Your task to perform on an android device: see creations saved in the google photos Image 0: 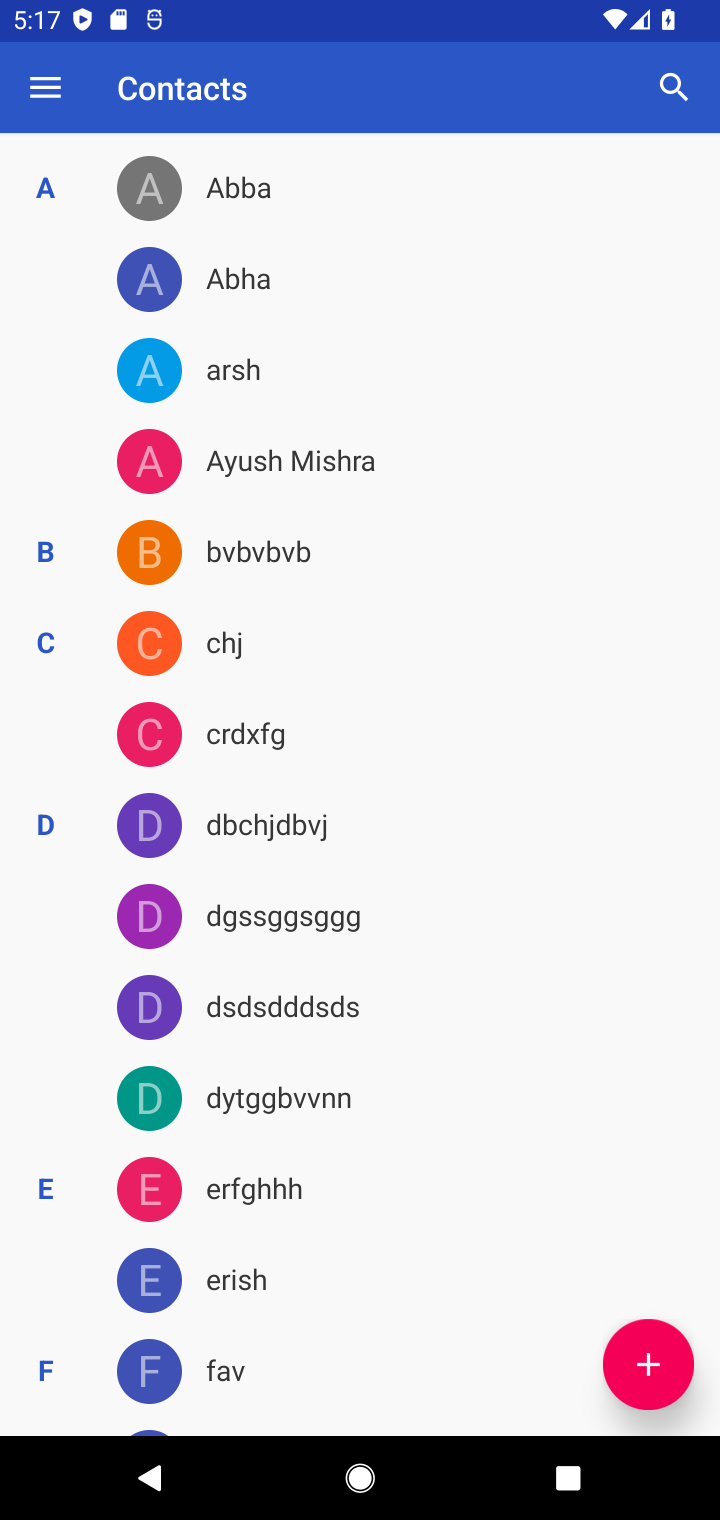
Step 0: press home button
Your task to perform on an android device: see creations saved in the google photos Image 1: 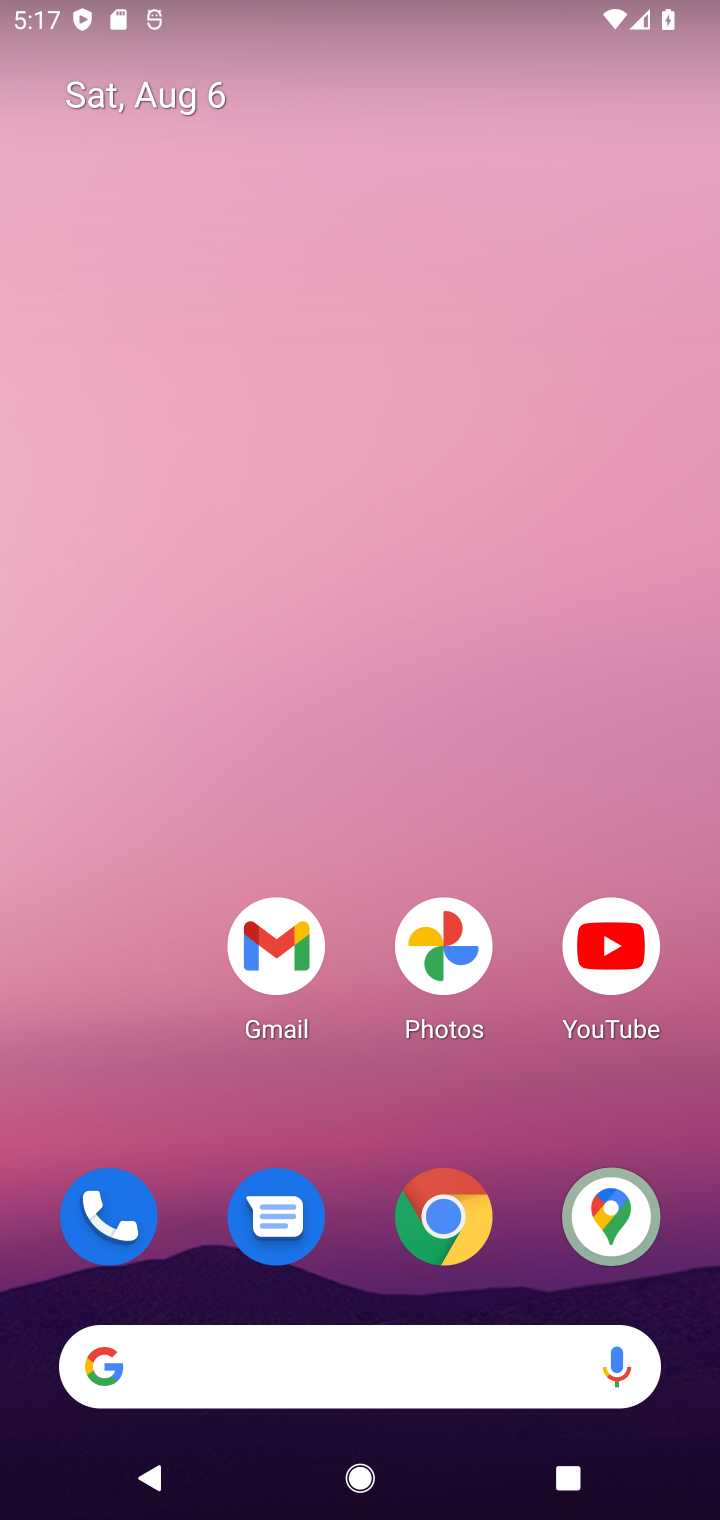
Step 1: drag from (364, 1081) to (455, 304)
Your task to perform on an android device: see creations saved in the google photos Image 2: 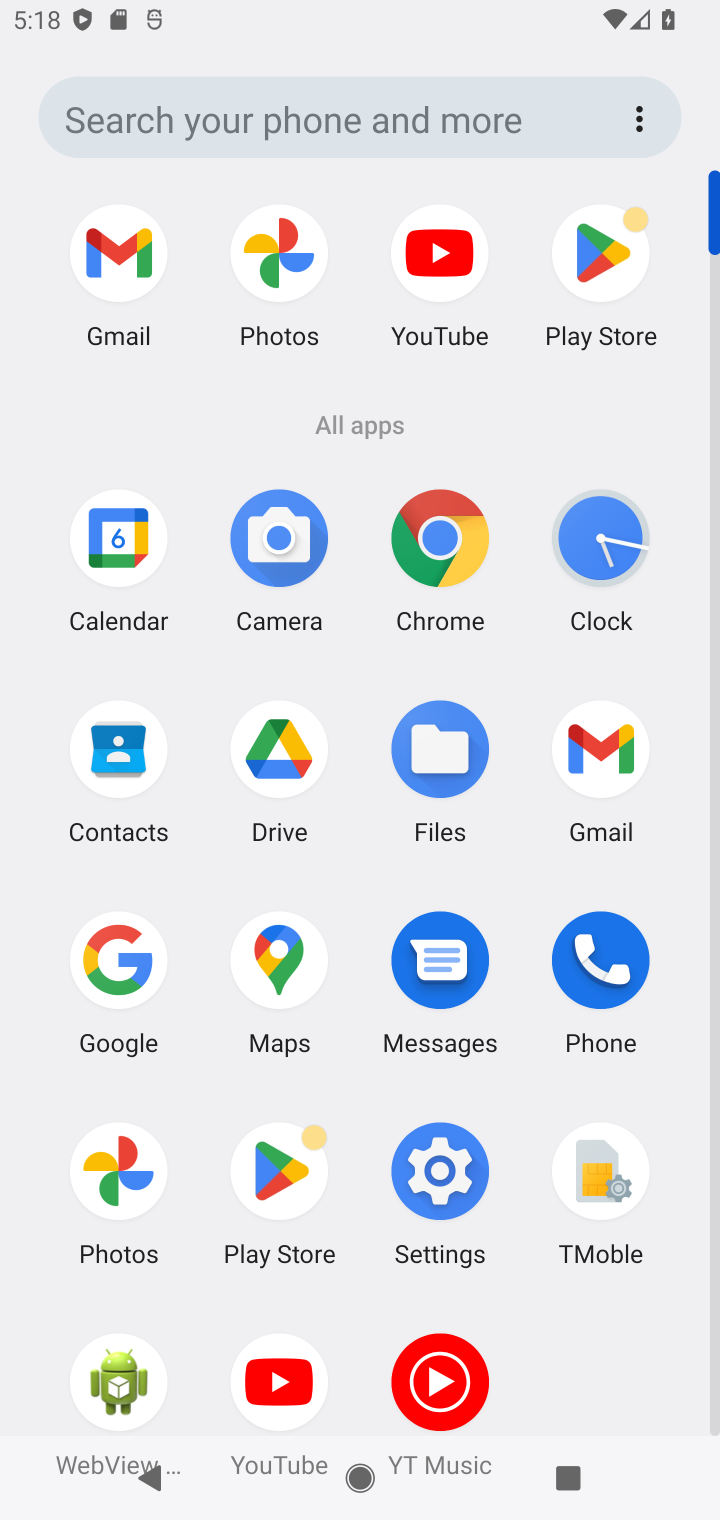
Step 2: click (141, 1156)
Your task to perform on an android device: see creations saved in the google photos Image 3: 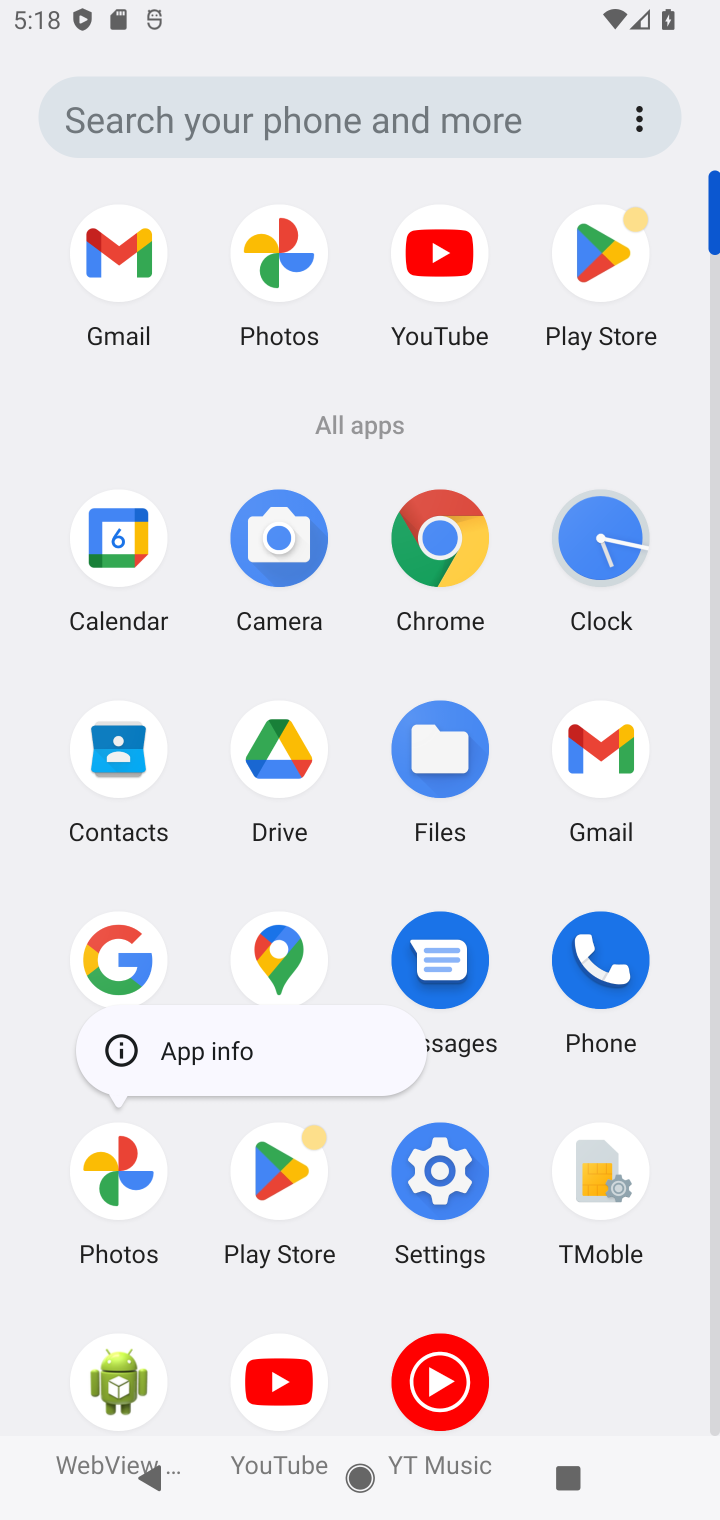
Step 3: click (114, 1192)
Your task to perform on an android device: see creations saved in the google photos Image 4: 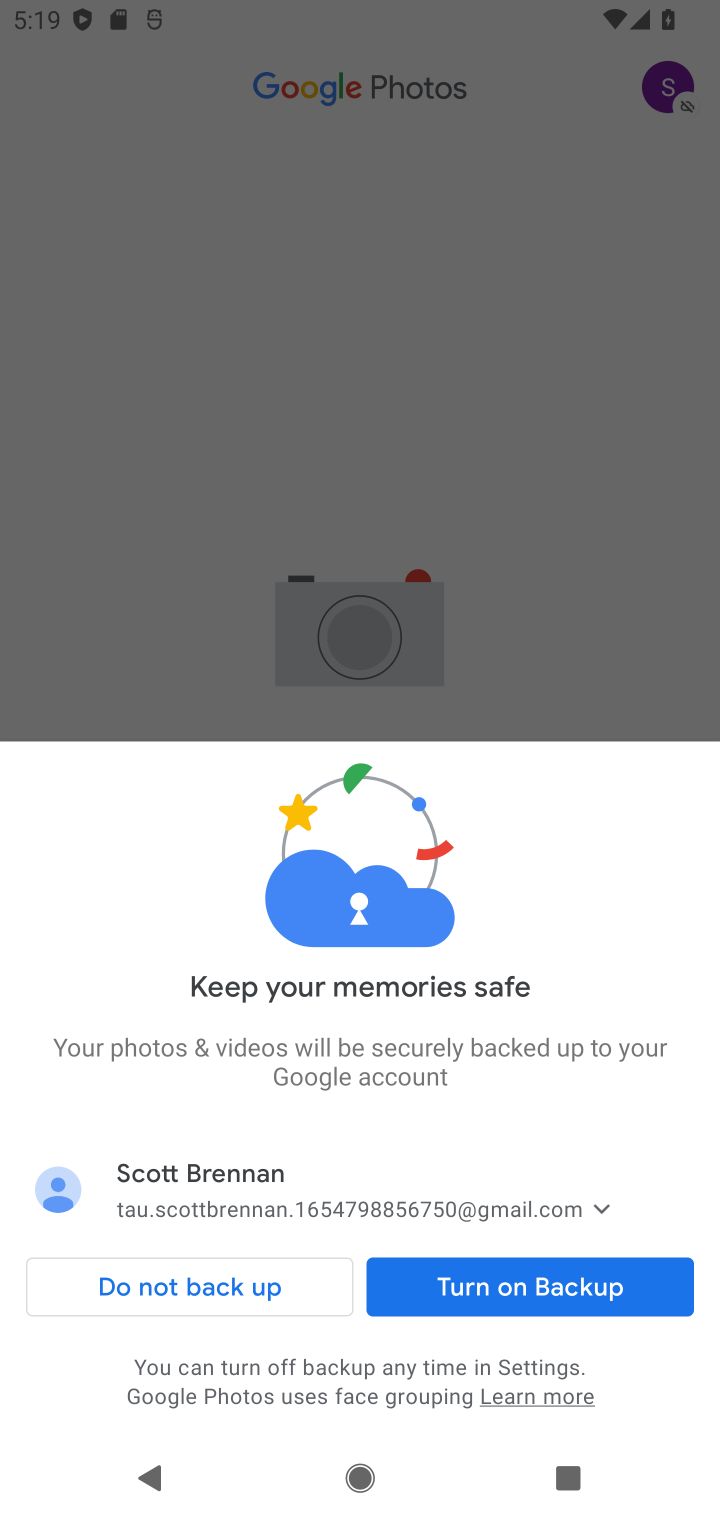
Step 4: click (526, 1271)
Your task to perform on an android device: see creations saved in the google photos Image 5: 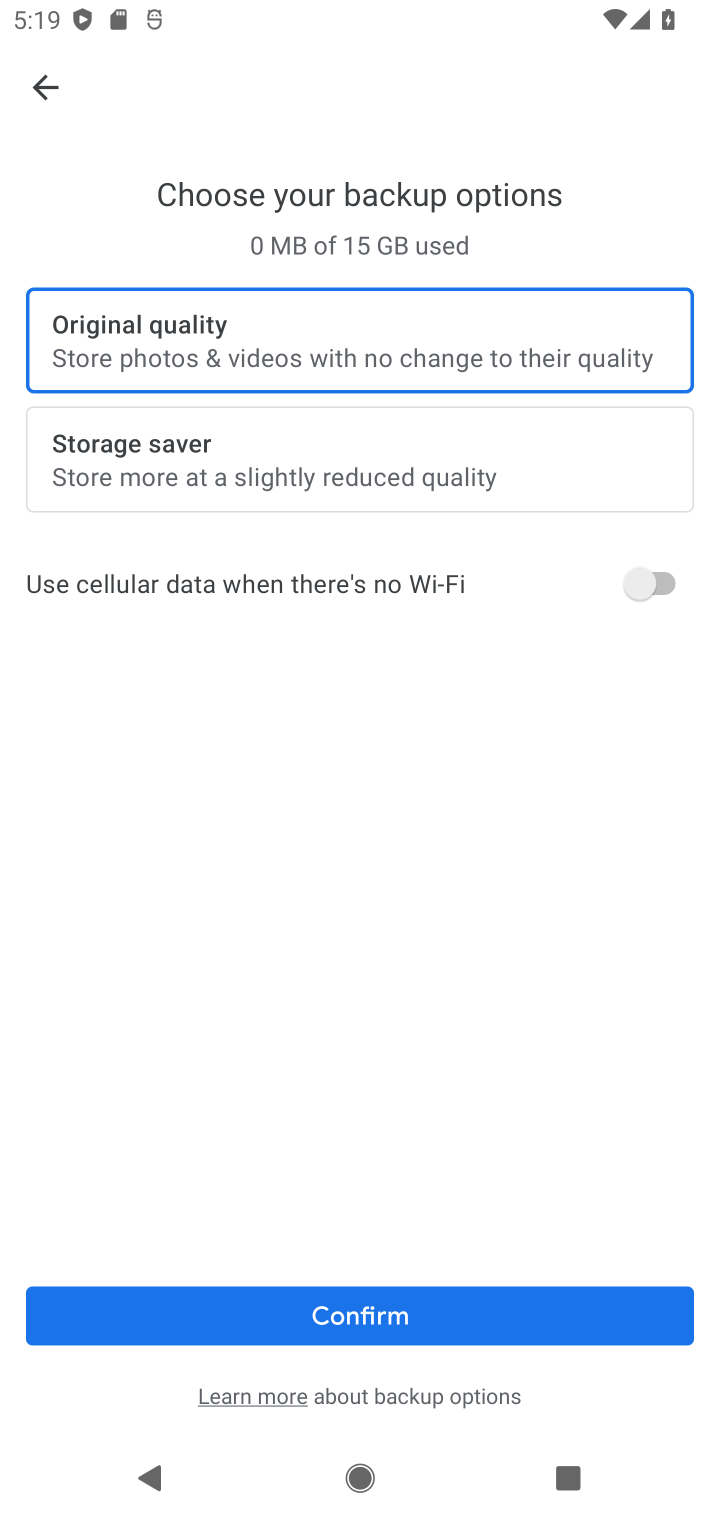
Step 5: click (524, 1255)
Your task to perform on an android device: see creations saved in the google photos Image 6: 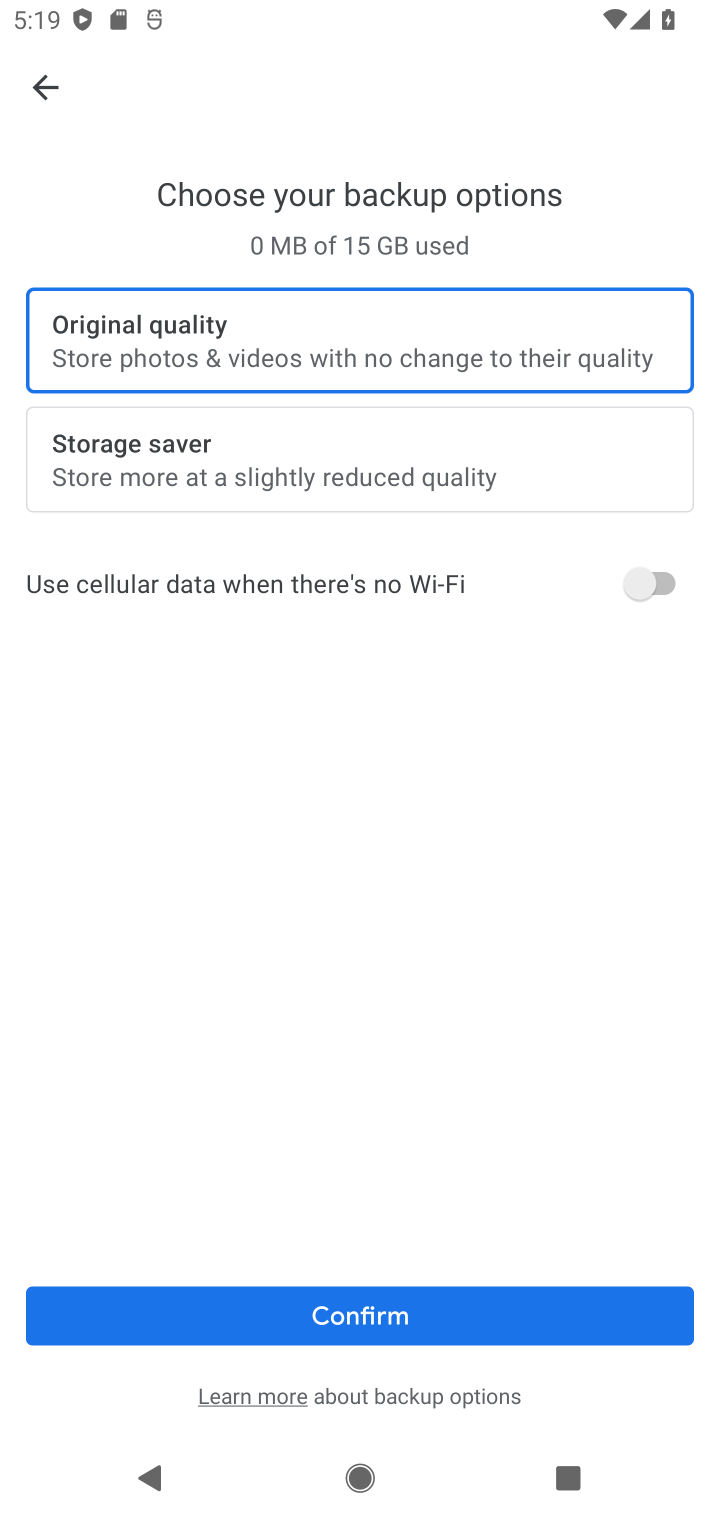
Step 6: click (424, 1364)
Your task to perform on an android device: see creations saved in the google photos Image 7: 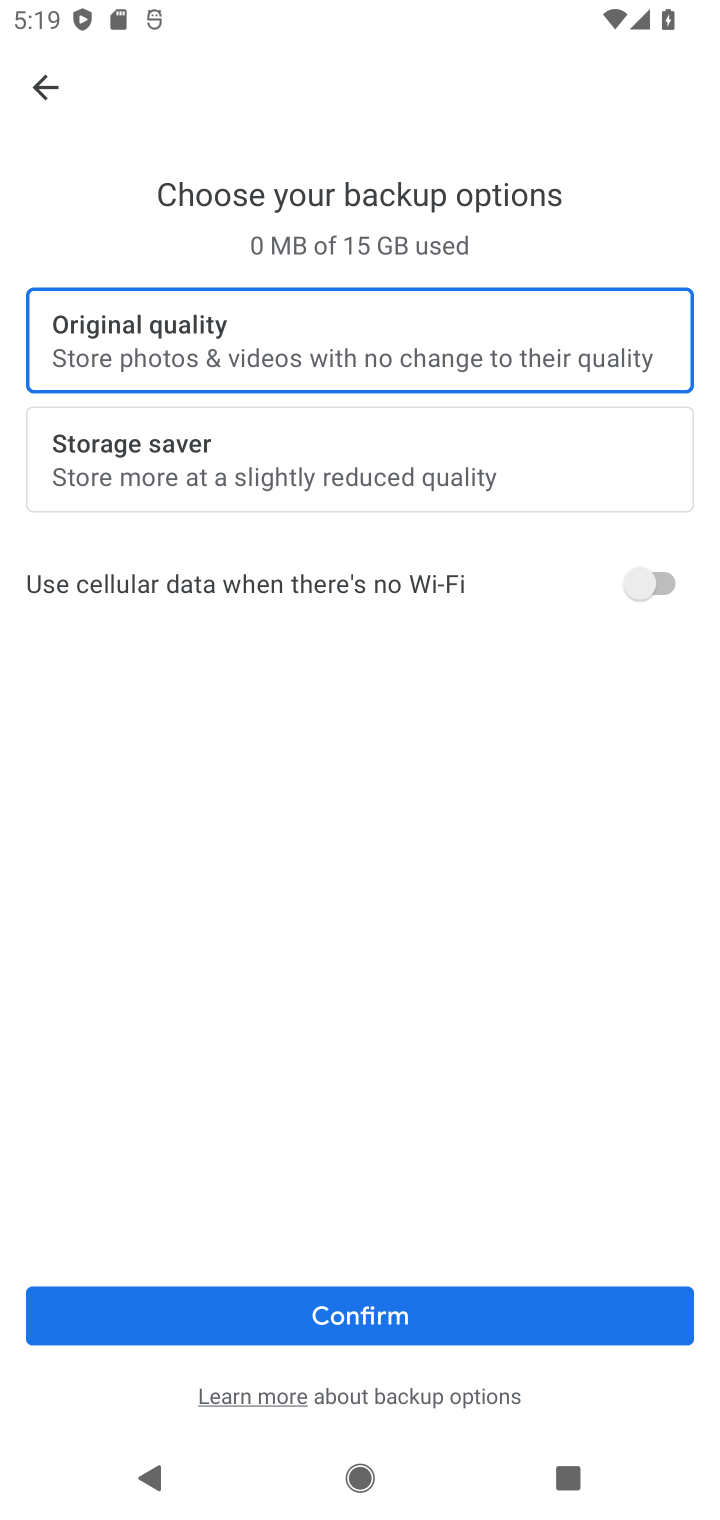
Step 7: click (350, 1322)
Your task to perform on an android device: see creations saved in the google photos Image 8: 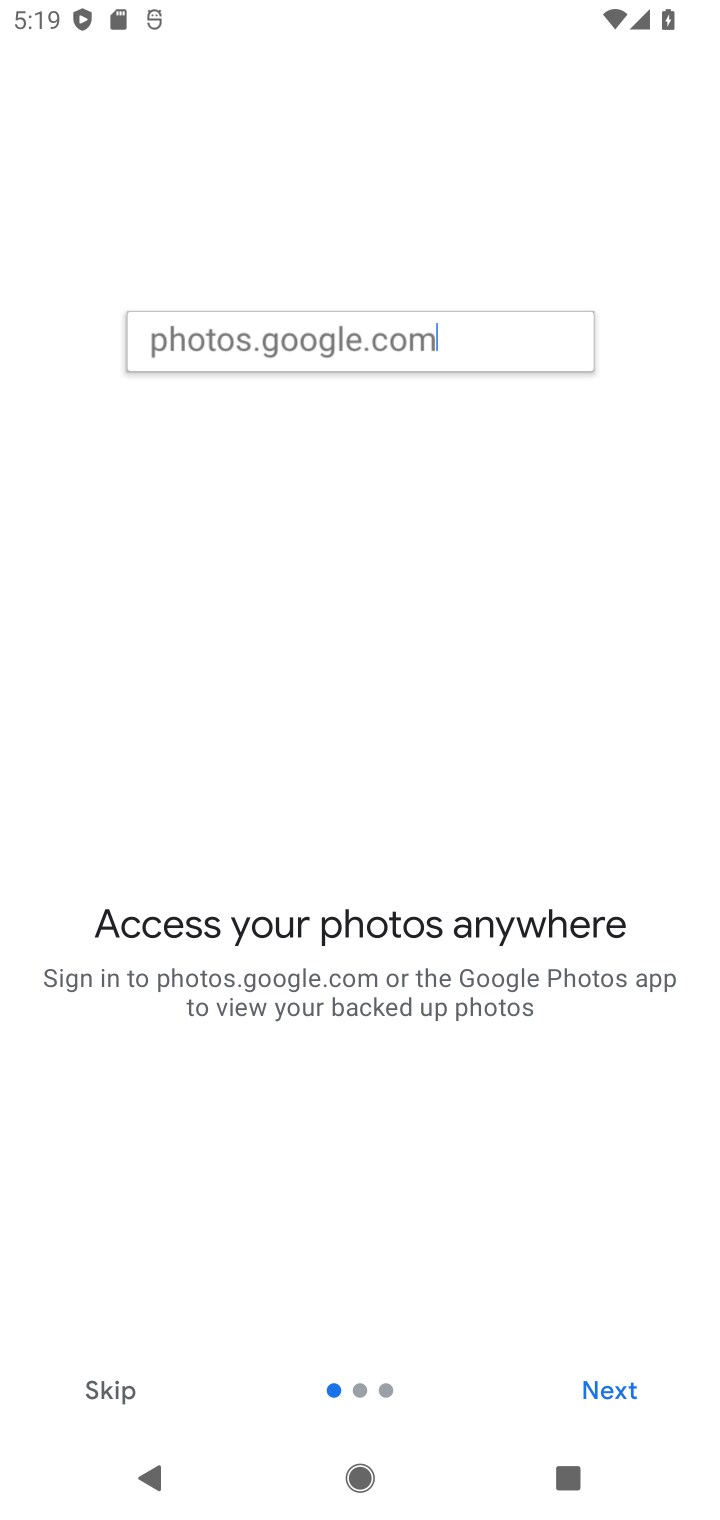
Step 8: click (620, 1400)
Your task to perform on an android device: see creations saved in the google photos Image 9: 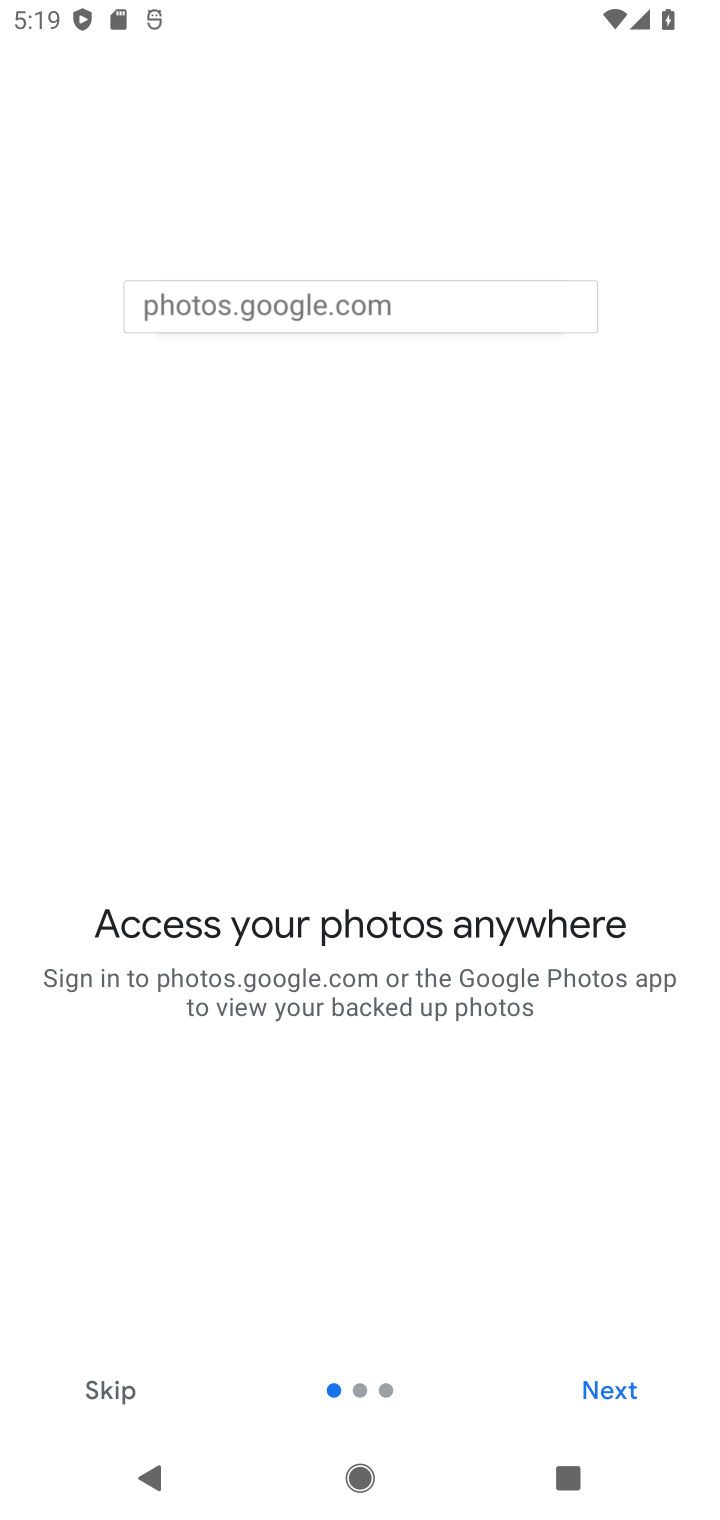
Step 9: click (620, 1398)
Your task to perform on an android device: see creations saved in the google photos Image 10: 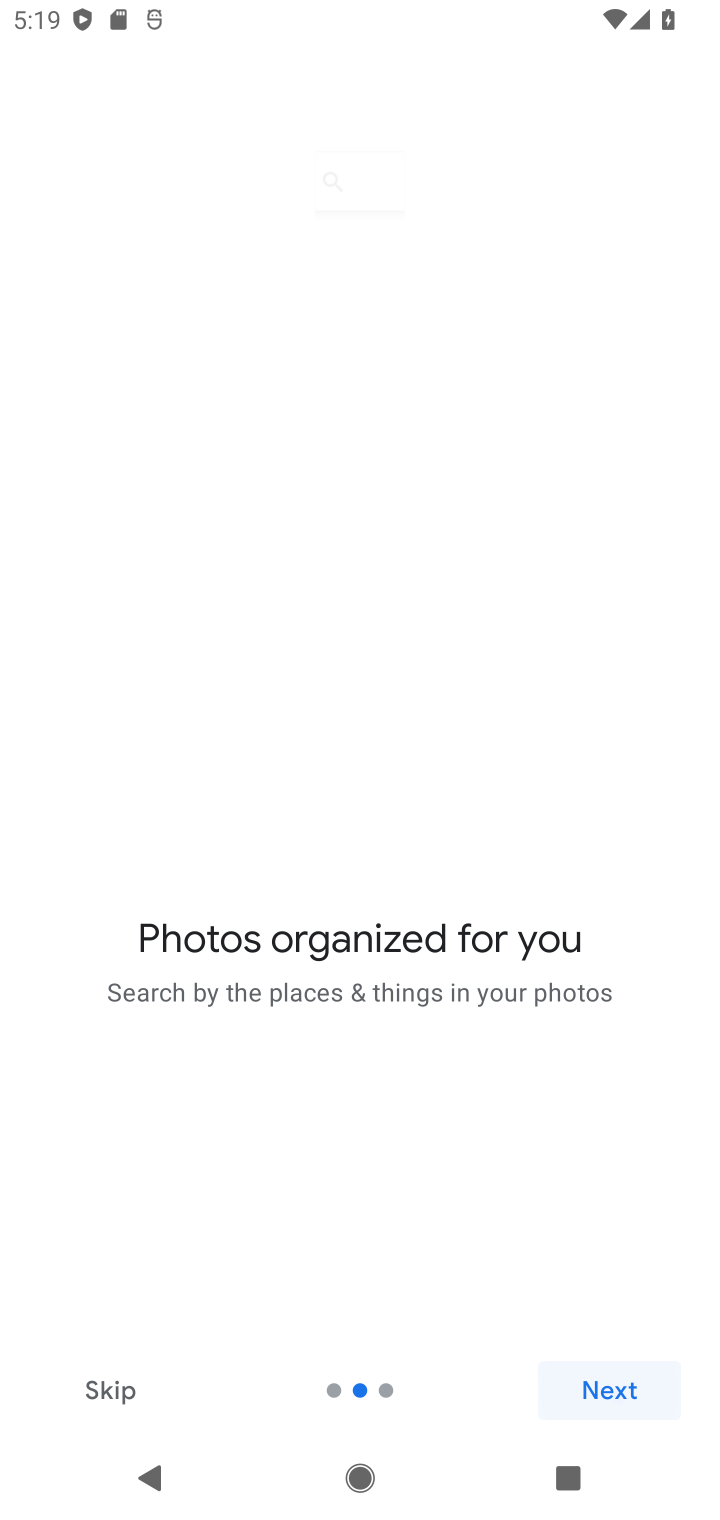
Step 10: click (620, 1395)
Your task to perform on an android device: see creations saved in the google photos Image 11: 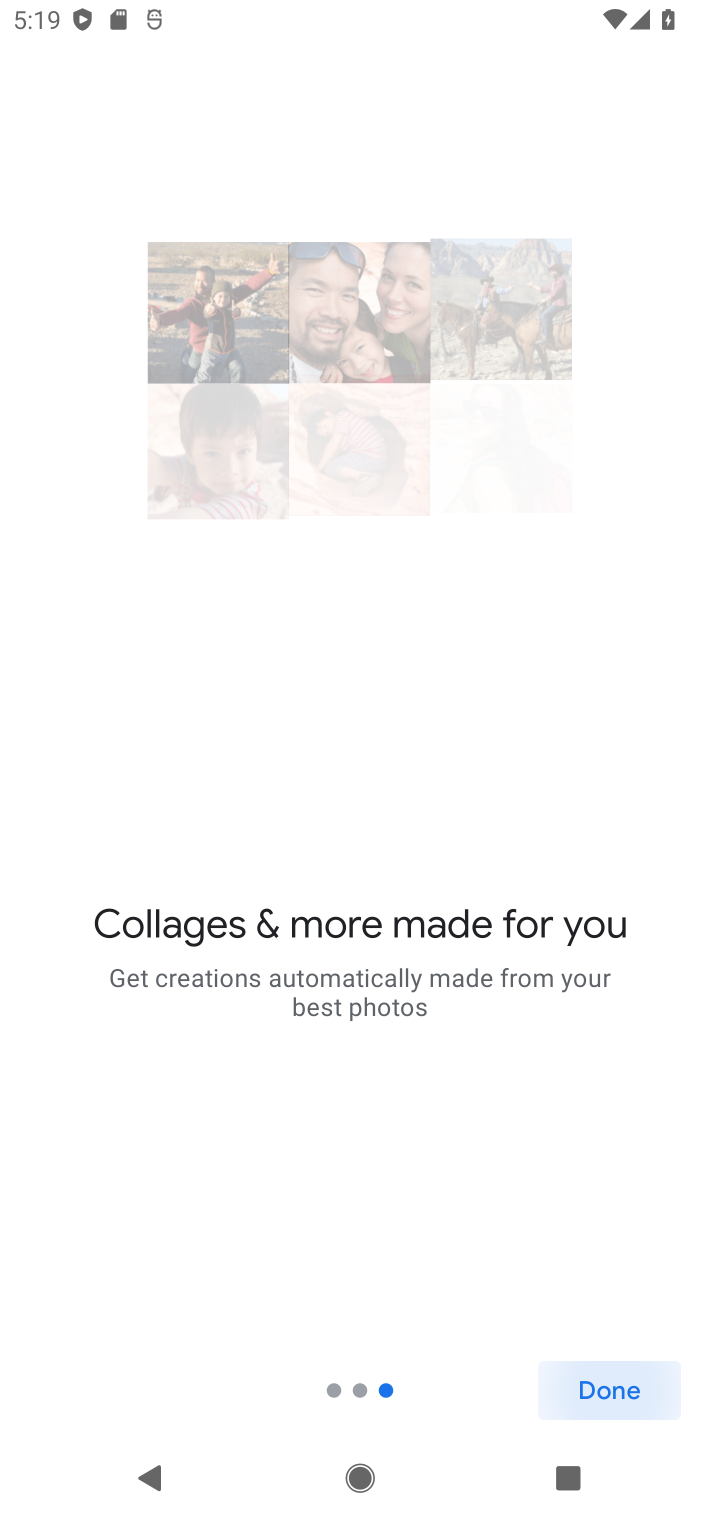
Step 11: click (620, 1395)
Your task to perform on an android device: see creations saved in the google photos Image 12: 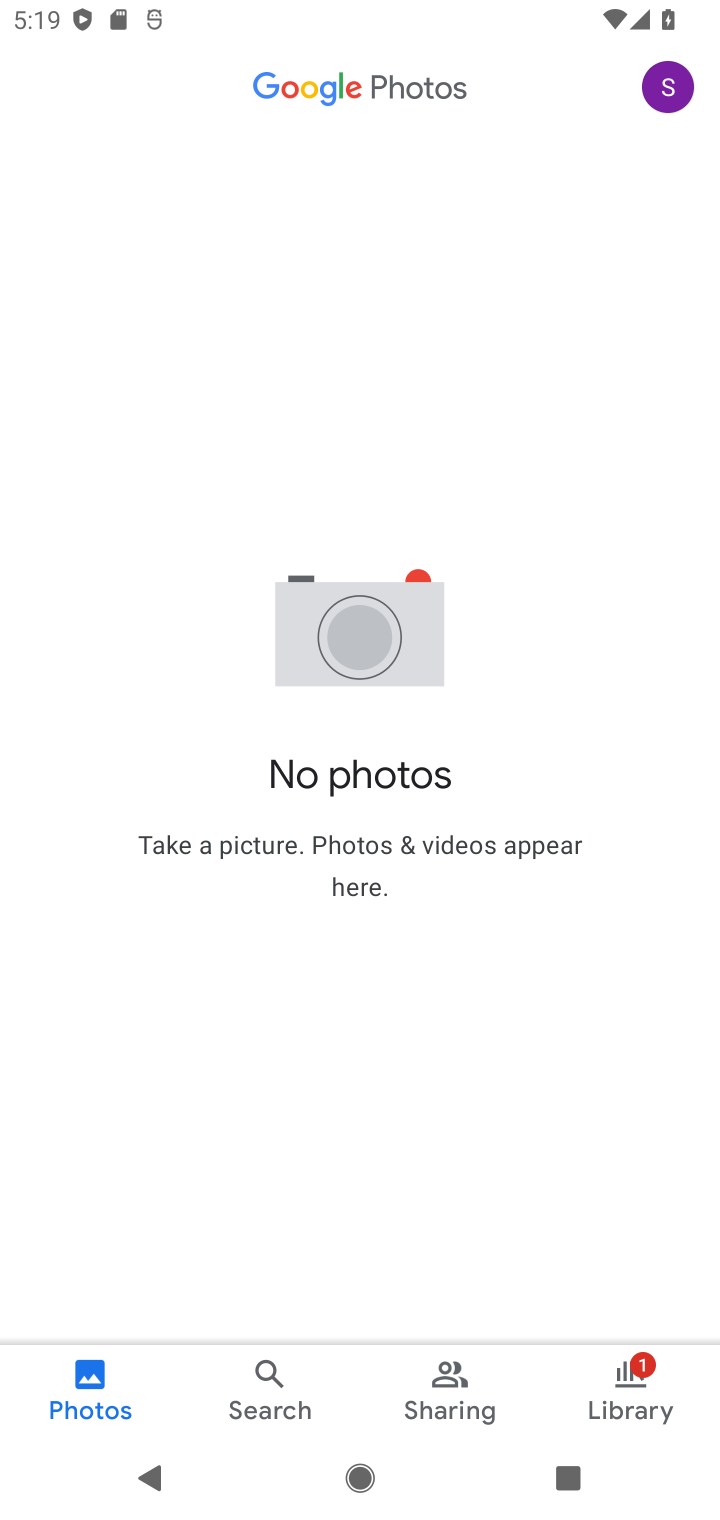
Step 12: click (634, 1364)
Your task to perform on an android device: see creations saved in the google photos Image 13: 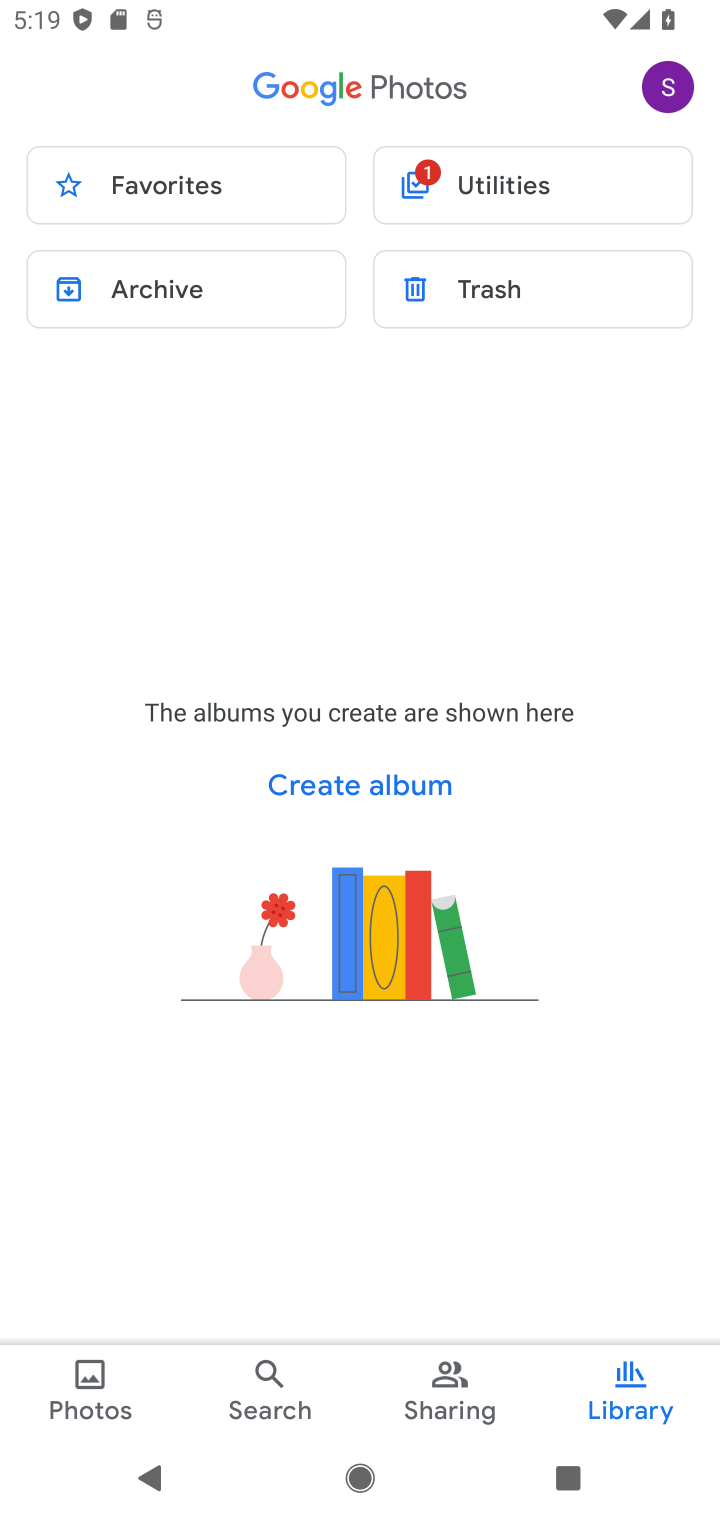
Step 13: task complete